Your task to perform on an android device: turn off airplane mode Image 0: 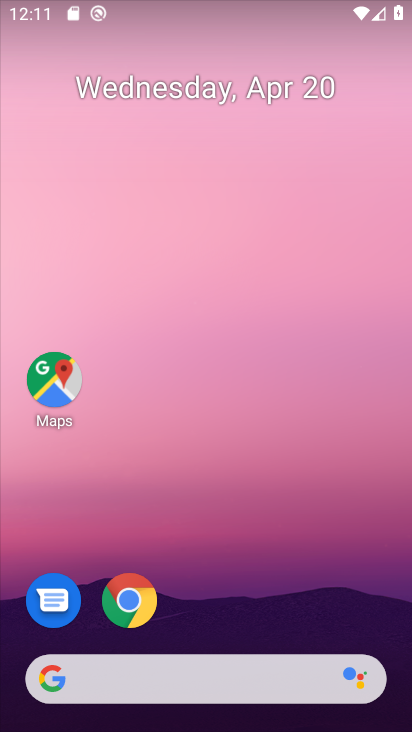
Step 0: drag from (343, 617) to (349, 124)
Your task to perform on an android device: turn off airplane mode Image 1: 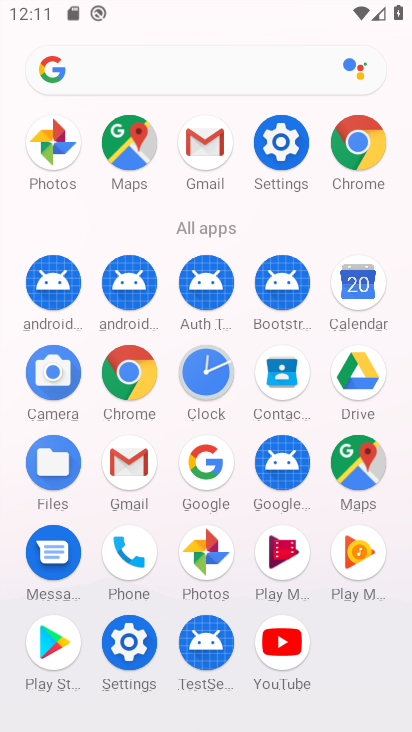
Step 1: click (154, 642)
Your task to perform on an android device: turn off airplane mode Image 2: 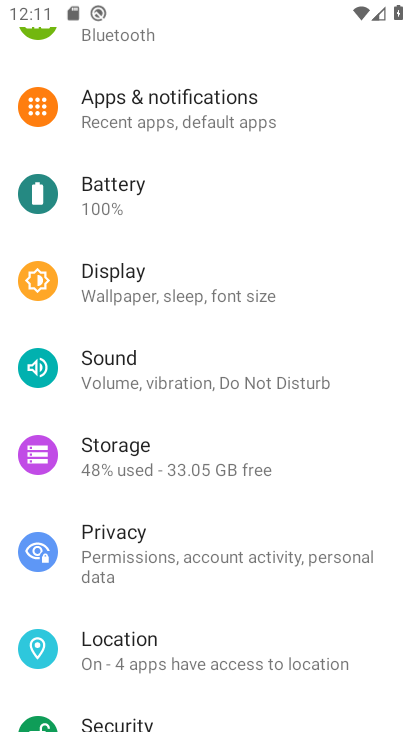
Step 2: drag from (224, 160) to (225, 526)
Your task to perform on an android device: turn off airplane mode Image 3: 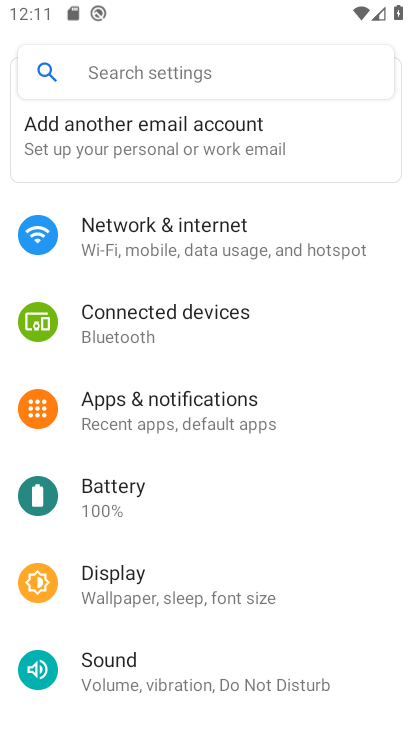
Step 3: click (181, 256)
Your task to perform on an android device: turn off airplane mode Image 4: 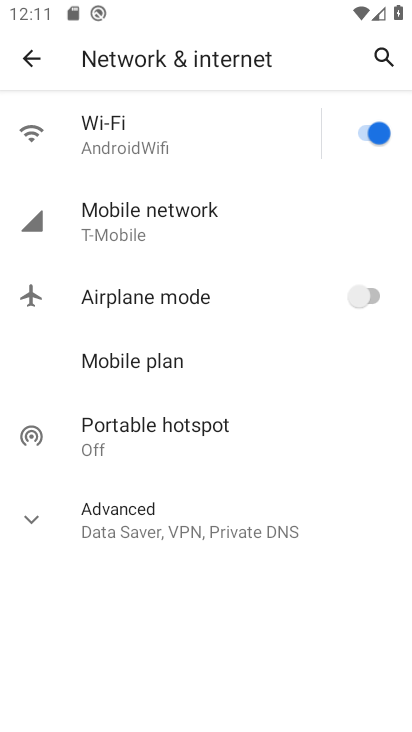
Step 4: task complete